Your task to perform on an android device: Is it going to rain this weekend? Image 0: 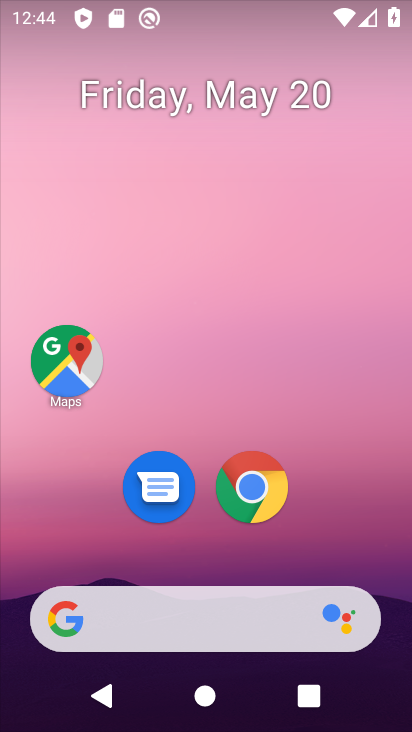
Step 0: drag from (343, 421) to (355, 70)
Your task to perform on an android device: Is it going to rain this weekend? Image 1: 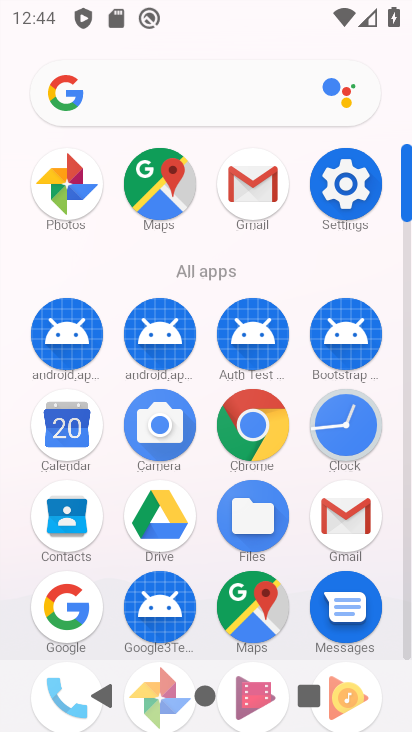
Step 1: click (249, 436)
Your task to perform on an android device: Is it going to rain this weekend? Image 2: 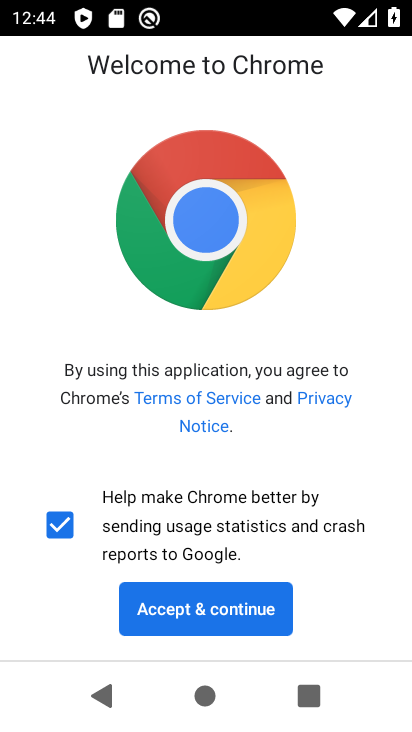
Step 2: click (178, 616)
Your task to perform on an android device: Is it going to rain this weekend? Image 3: 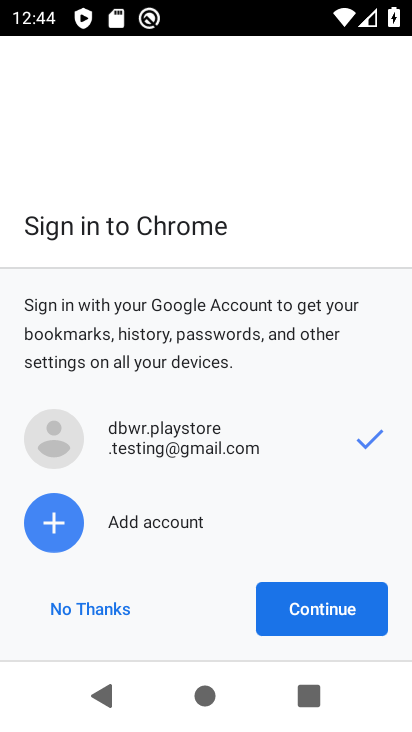
Step 3: click (302, 612)
Your task to perform on an android device: Is it going to rain this weekend? Image 4: 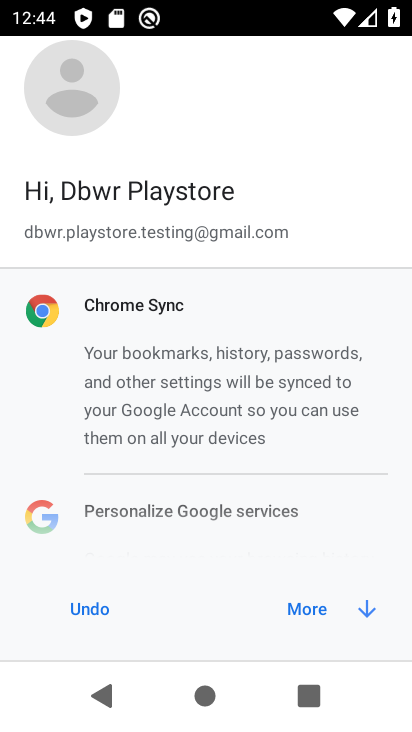
Step 4: click (301, 612)
Your task to perform on an android device: Is it going to rain this weekend? Image 5: 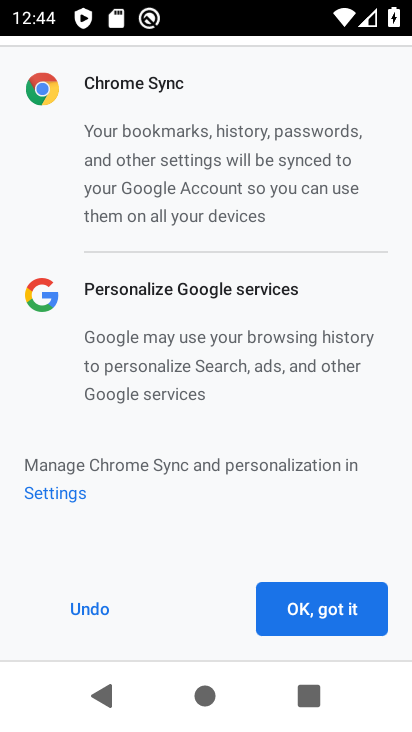
Step 5: click (301, 612)
Your task to perform on an android device: Is it going to rain this weekend? Image 6: 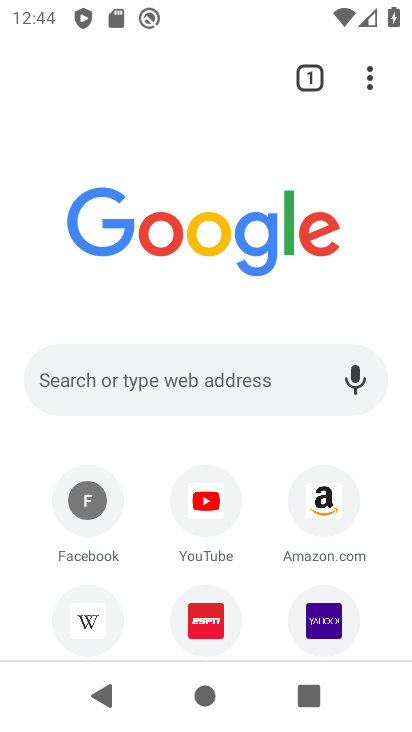
Step 6: click (192, 363)
Your task to perform on an android device: Is it going to rain this weekend? Image 7: 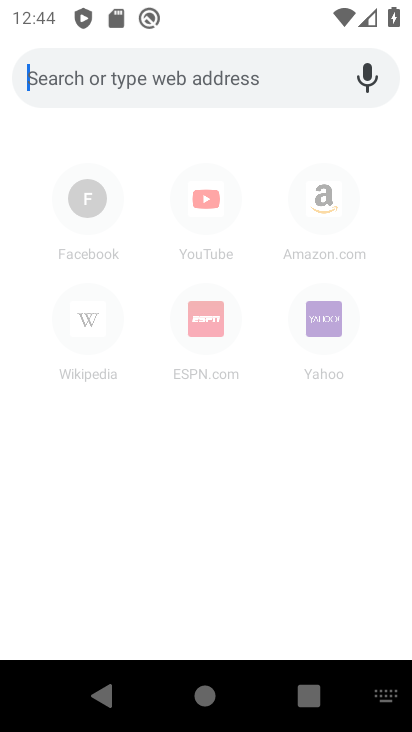
Step 7: type "weather"
Your task to perform on an android device: Is it going to rain this weekend? Image 8: 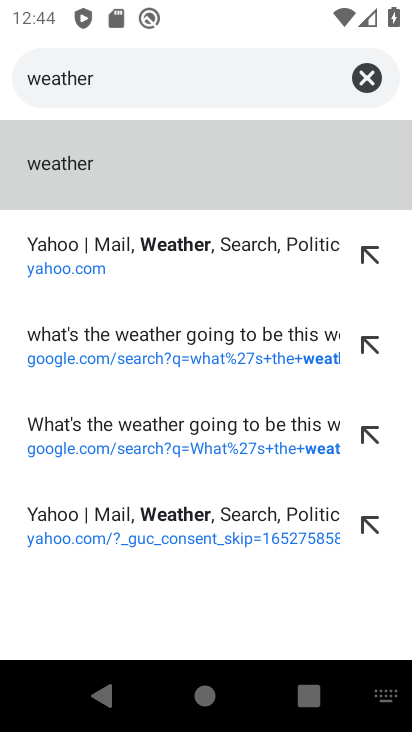
Step 8: click (70, 159)
Your task to perform on an android device: Is it going to rain this weekend? Image 9: 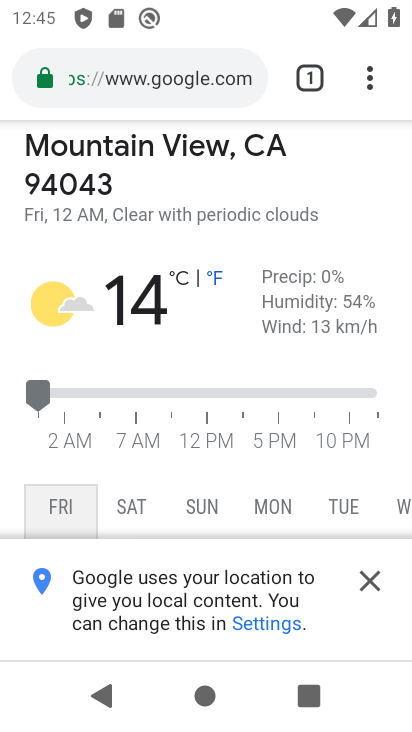
Step 9: drag from (252, 305) to (286, 136)
Your task to perform on an android device: Is it going to rain this weekend? Image 10: 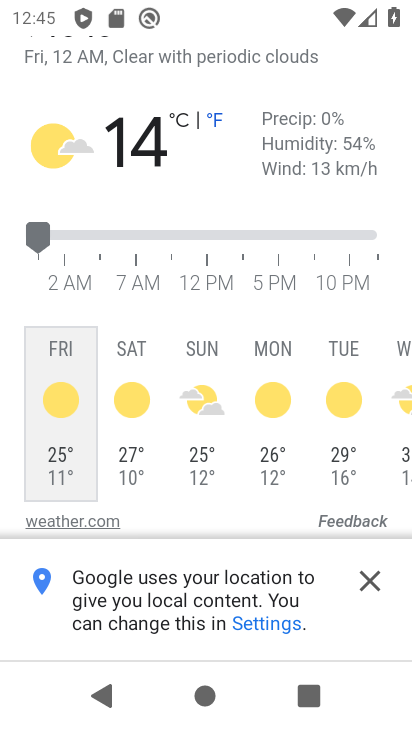
Step 10: drag from (329, 441) to (262, 432)
Your task to perform on an android device: Is it going to rain this weekend? Image 11: 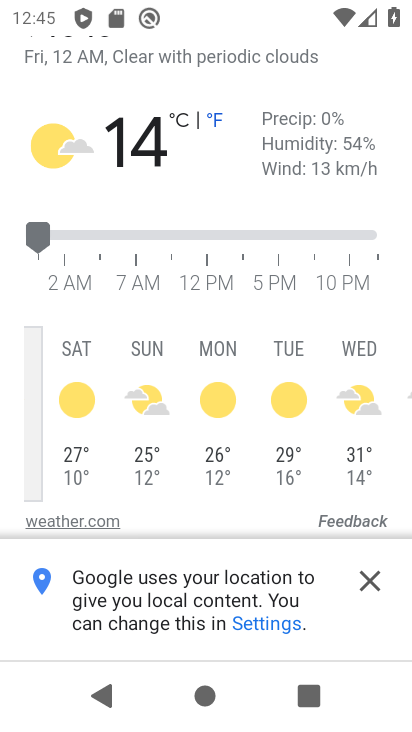
Step 11: drag from (252, 408) to (405, 400)
Your task to perform on an android device: Is it going to rain this weekend? Image 12: 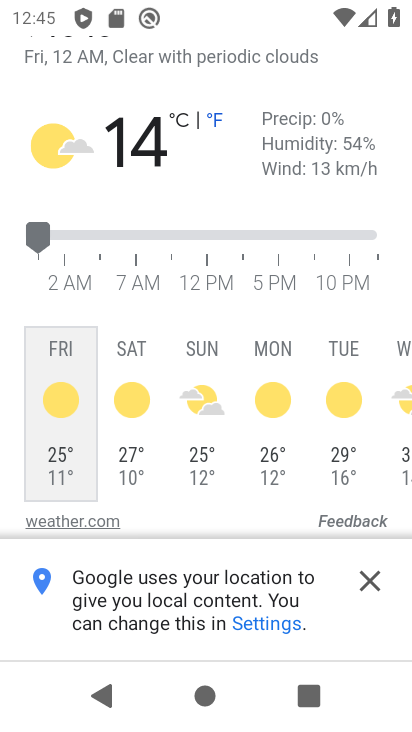
Step 12: click (209, 392)
Your task to perform on an android device: Is it going to rain this weekend? Image 13: 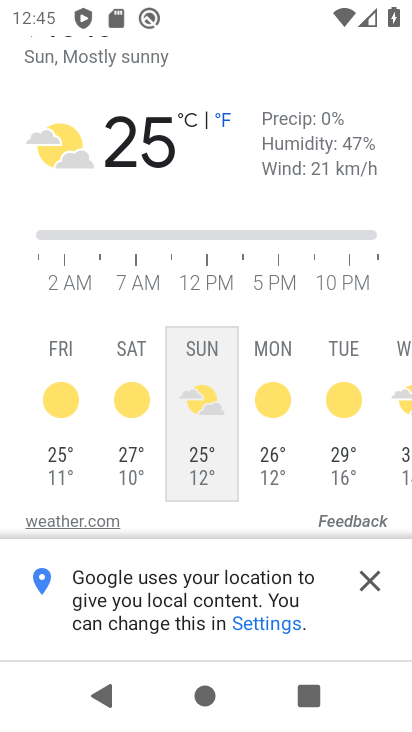
Step 13: task complete